Your task to perform on an android device: How big is a giraffe? Image 0: 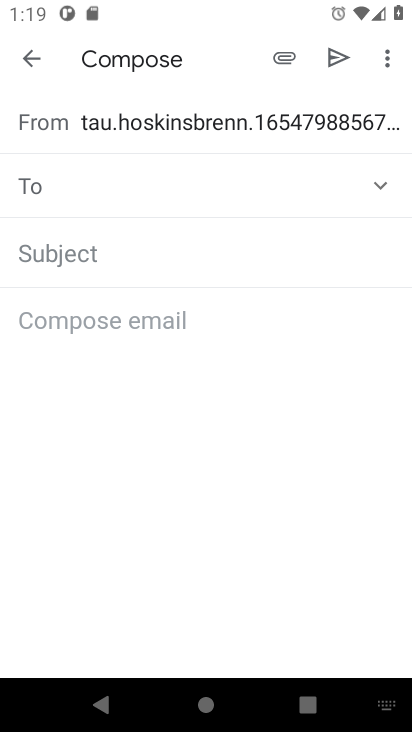
Step 0: press home button
Your task to perform on an android device: How big is a giraffe? Image 1: 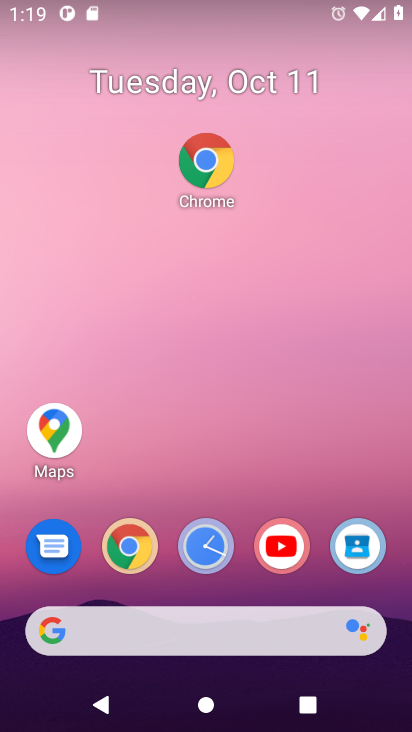
Step 1: click (131, 562)
Your task to perform on an android device: How big is a giraffe? Image 2: 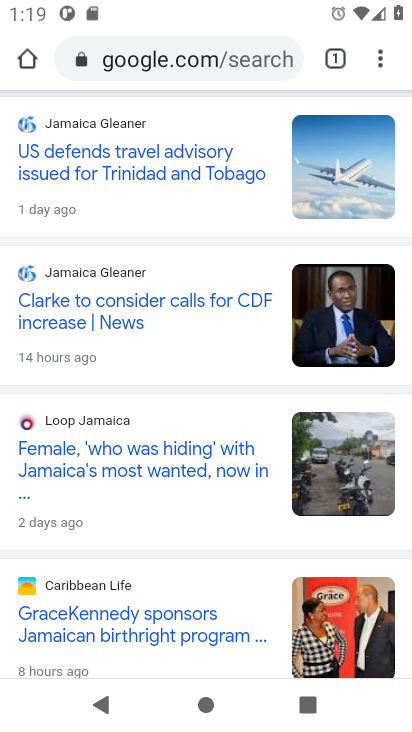
Step 2: click (186, 74)
Your task to perform on an android device: How big is a giraffe? Image 3: 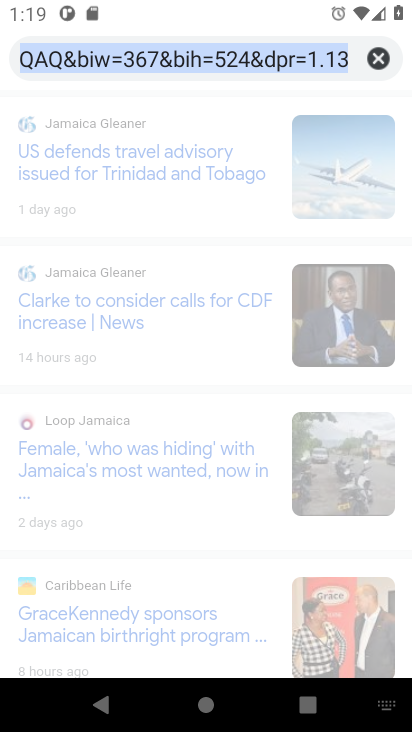
Step 3: type "how big is a giraffe"
Your task to perform on an android device: How big is a giraffe? Image 4: 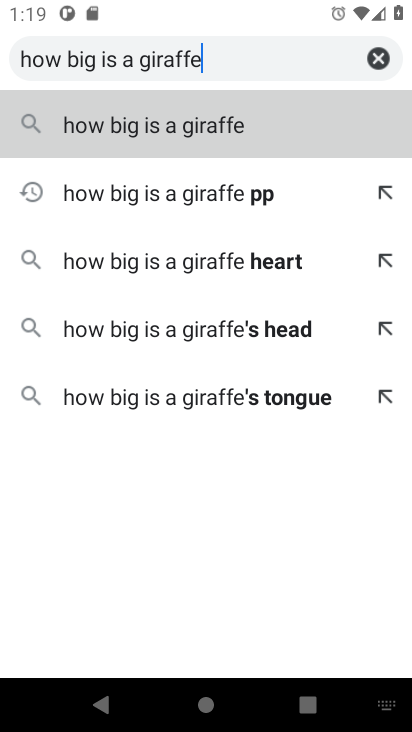
Step 4: type ""
Your task to perform on an android device: How big is a giraffe? Image 5: 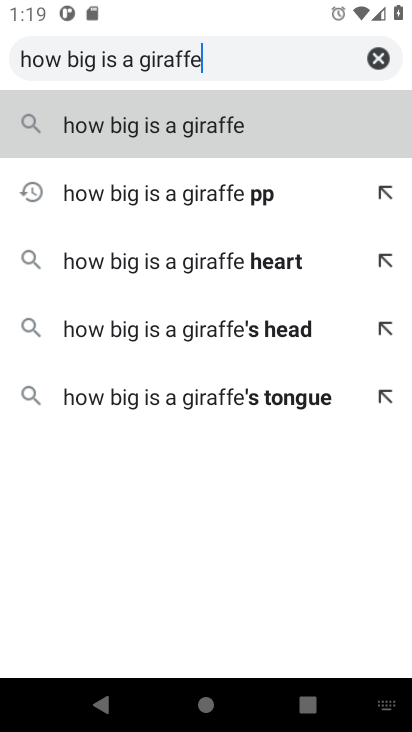
Step 5: press enter
Your task to perform on an android device: How big is a giraffe? Image 6: 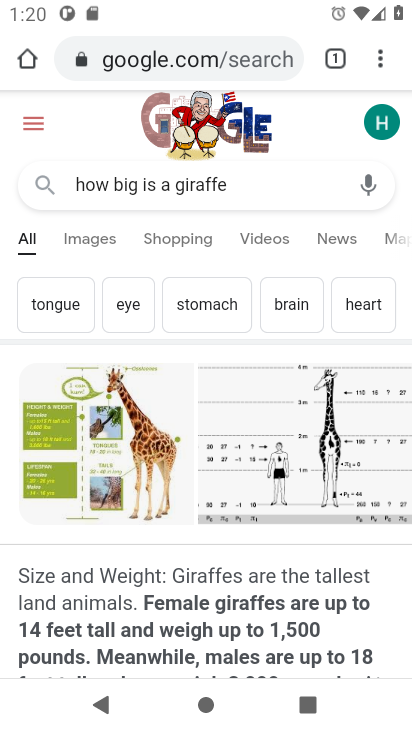
Step 6: task complete